Your task to perform on an android device: check google app version Image 0: 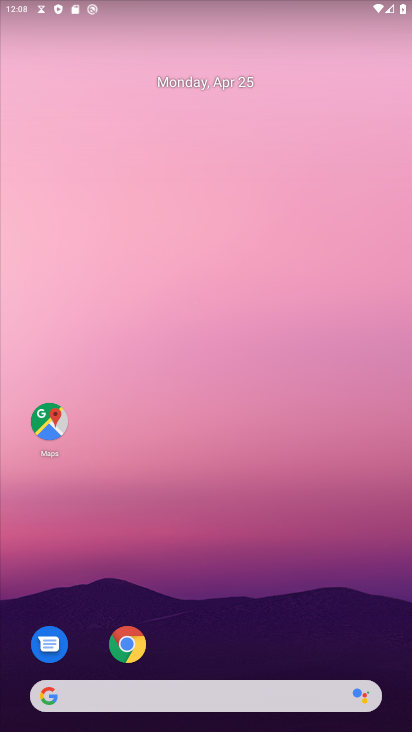
Step 0: drag from (358, 641) to (290, 7)
Your task to perform on an android device: check google app version Image 1: 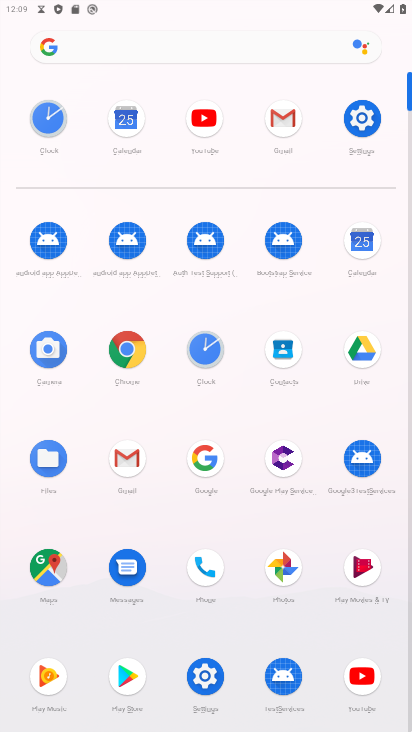
Step 1: click (210, 458)
Your task to perform on an android device: check google app version Image 2: 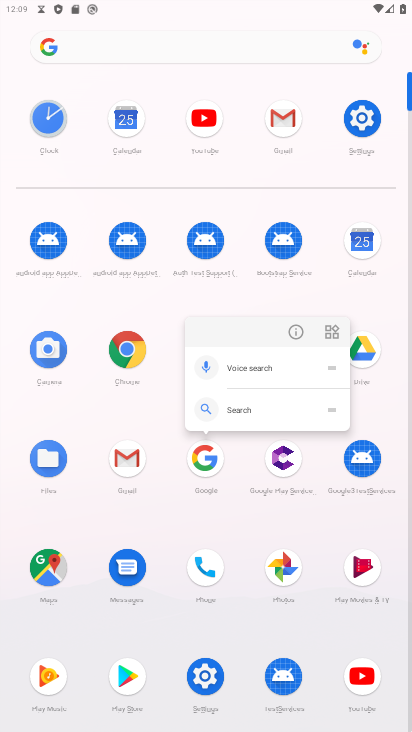
Step 2: click (296, 334)
Your task to perform on an android device: check google app version Image 3: 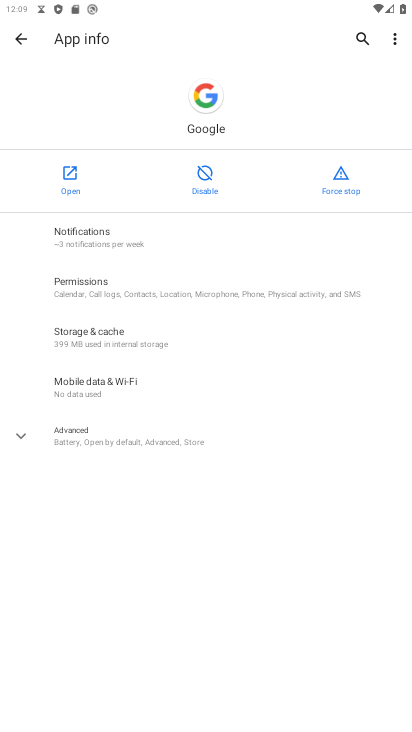
Step 3: click (18, 444)
Your task to perform on an android device: check google app version Image 4: 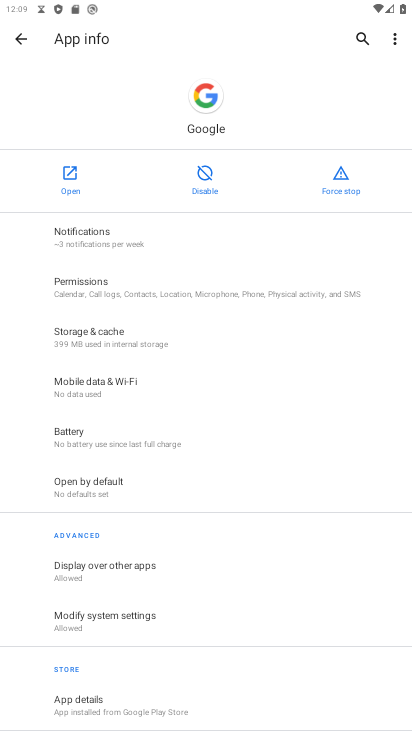
Step 4: task complete